Your task to perform on an android device: Go to eBay Image 0: 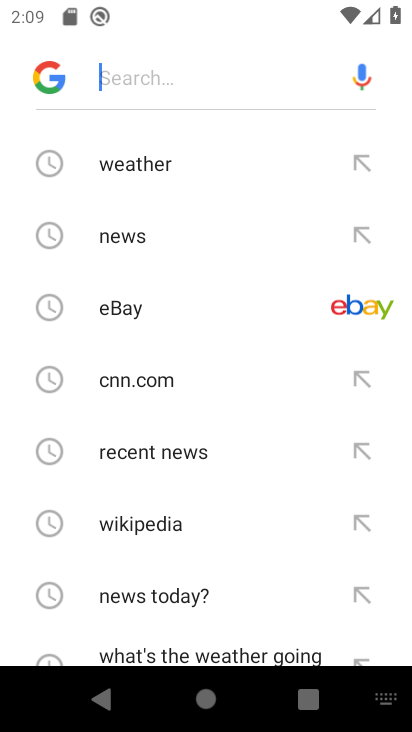
Step 0: press home button
Your task to perform on an android device: Go to eBay Image 1: 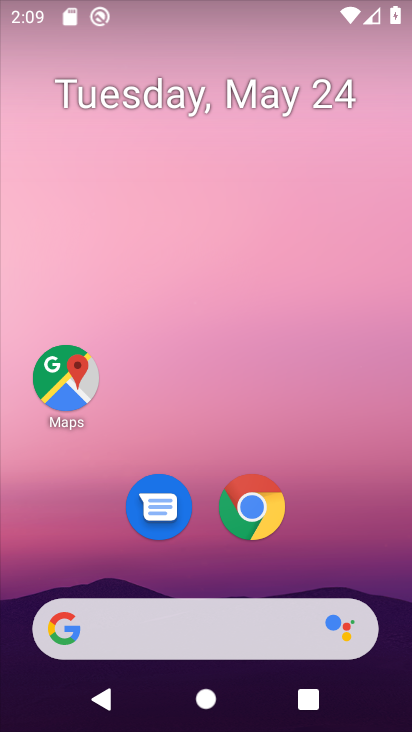
Step 1: click (252, 499)
Your task to perform on an android device: Go to eBay Image 2: 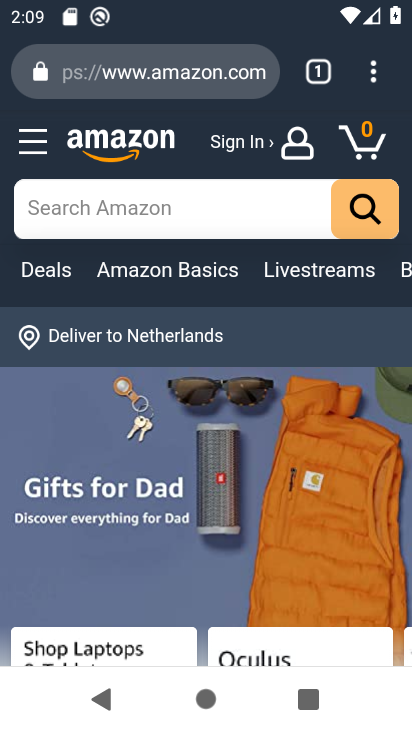
Step 2: click (316, 65)
Your task to perform on an android device: Go to eBay Image 3: 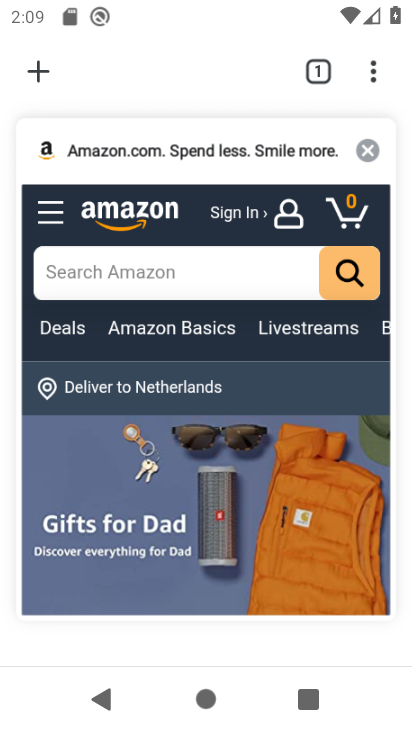
Step 3: click (365, 146)
Your task to perform on an android device: Go to eBay Image 4: 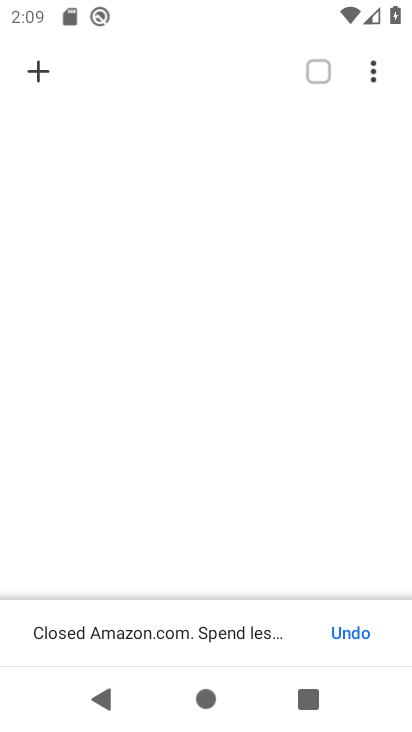
Step 4: click (43, 69)
Your task to perform on an android device: Go to eBay Image 5: 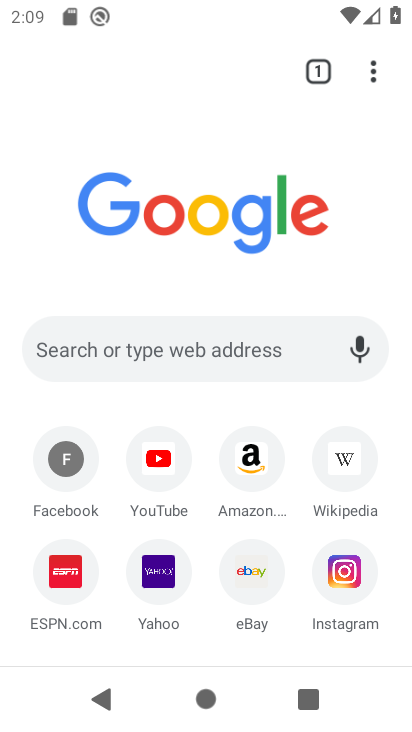
Step 5: click (249, 570)
Your task to perform on an android device: Go to eBay Image 6: 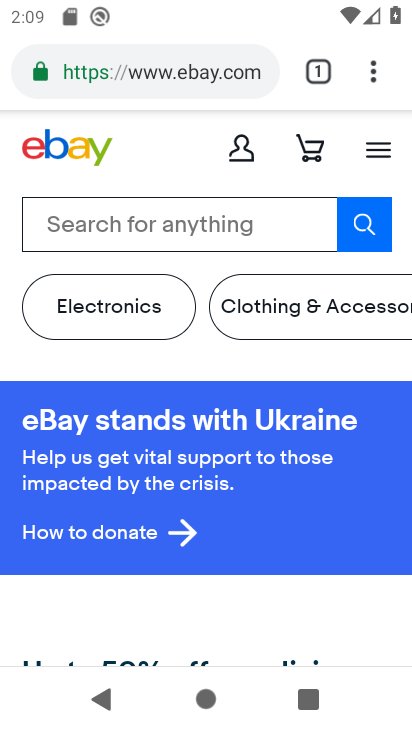
Step 6: drag from (253, 312) to (274, 143)
Your task to perform on an android device: Go to eBay Image 7: 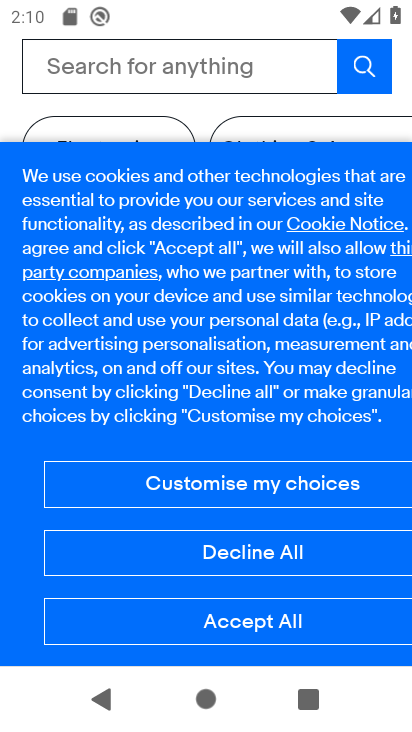
Step 7: click (238, 631)
Your task to perform on an android device: Go to eBay Image 8: 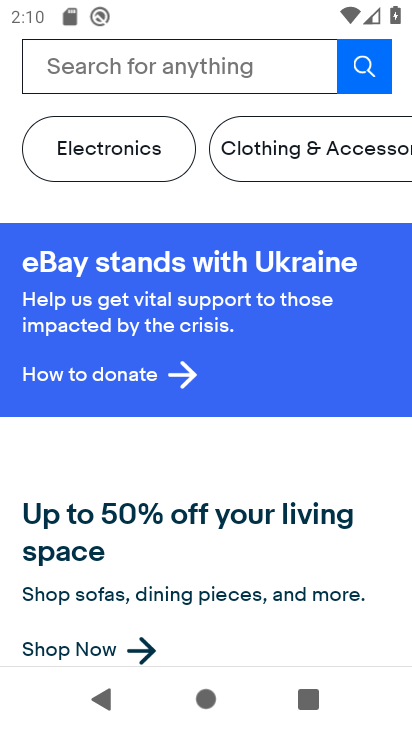
Step 8: task complete